Your task to perform on an android device: toggle sleep mode Image 0: 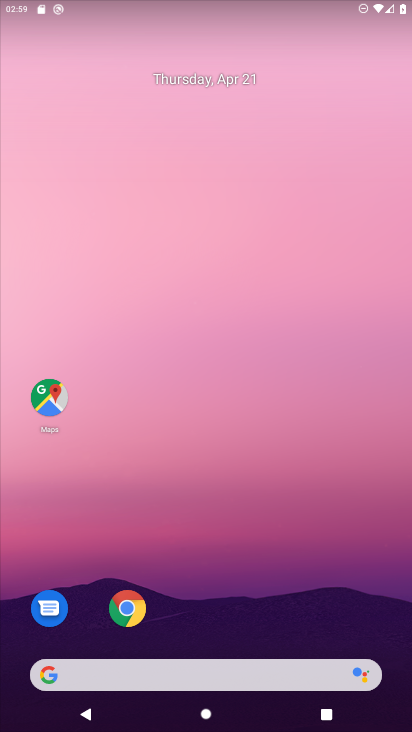
Step 0: drag from (263, 577) to (283, 199)
Your task to perform on an android device: toggle sleep mode Image 1: 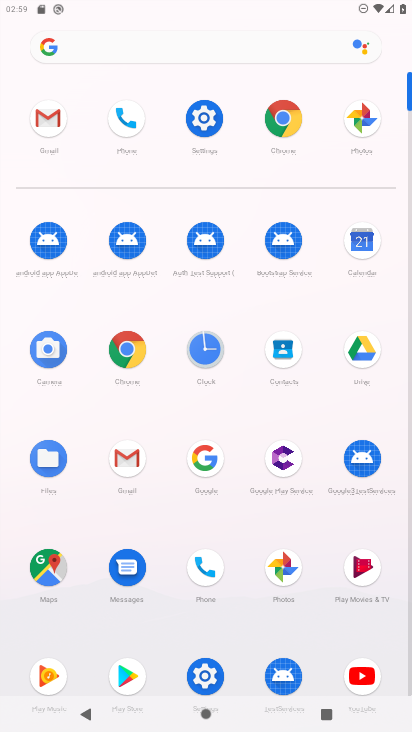
Step 1: click (201, 115)
Your task to perform on an android device: toggle sleep mode Image 2: 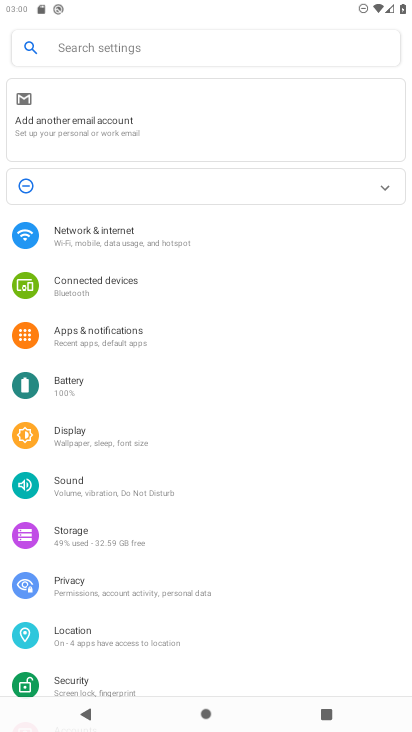
Step 2: task complete